Your task to perform on an android device: Is it going to rain tomorrow? Image 0: 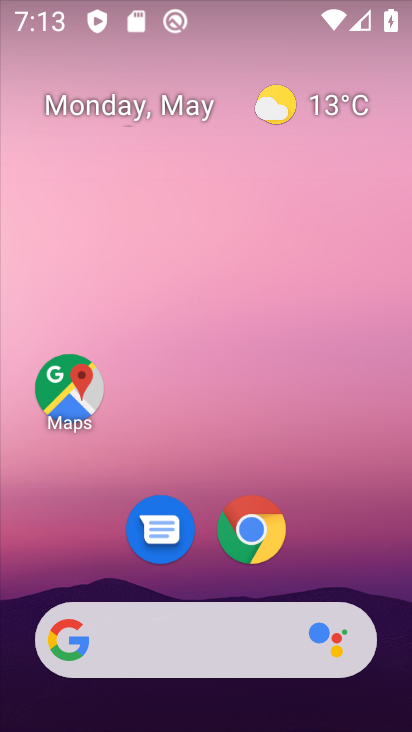
Step 0: drag from (265, 697) to (279, 208)
Your task to perform on an android device: Is it going to rain tomorrow? Image 1: 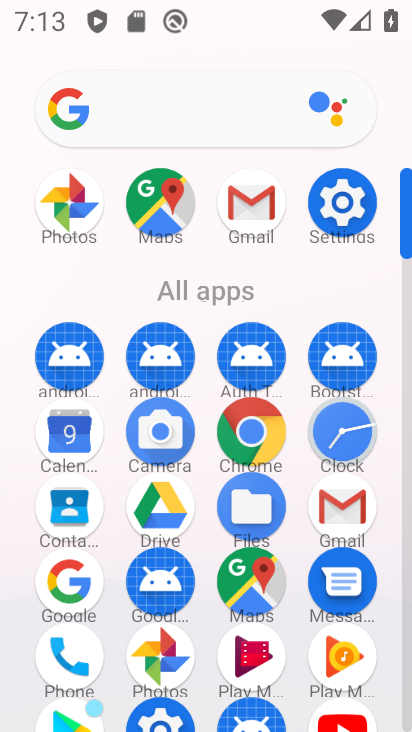
Step 1: click (125, 123)
Your task to perform on an android device: Is it going to rain tomorrow? Image 2: 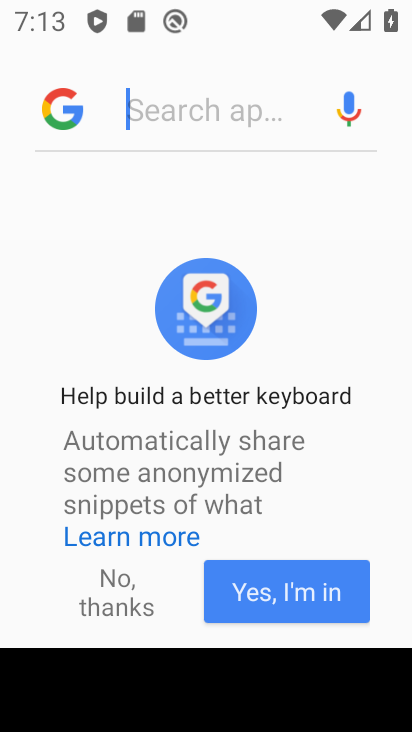
Step 2: click (111, 598)
Your task to perform on an android device: Is it going to rain tomorrow? Image 3: 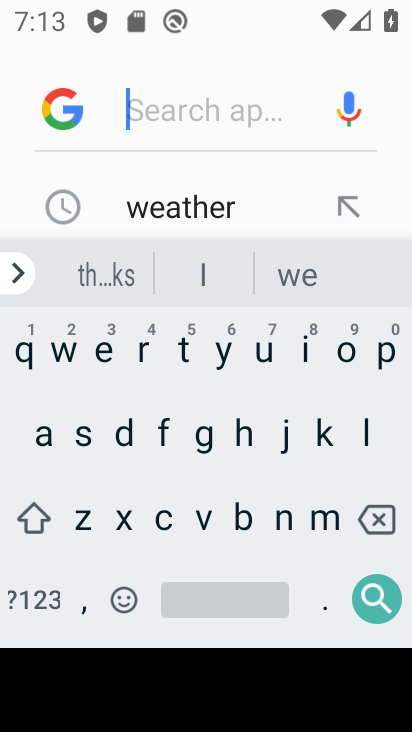
Step 3: click (218, 207)
Your task to perform on an android device: Is it going to rain tomorrow? Image 4: 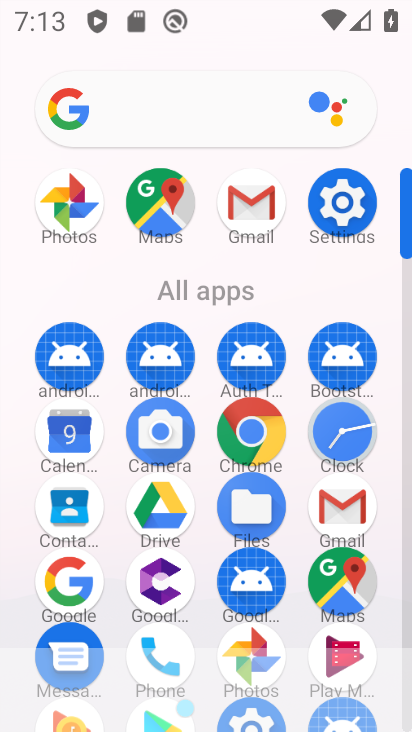
Step 4: click (146, 142)
Your task to perform on an android device: Is it going to rain tomorrow? Image 5: 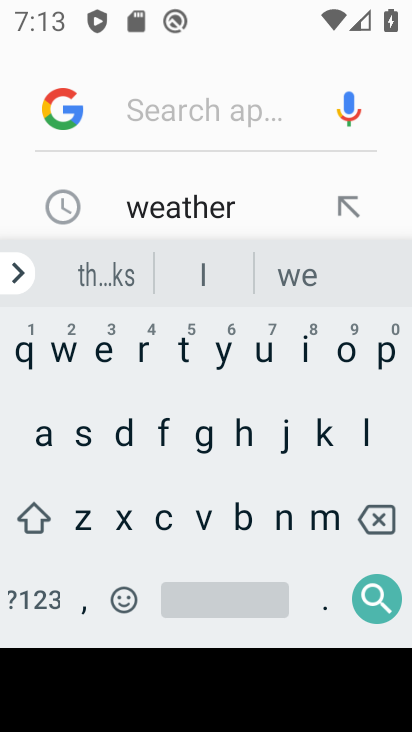
Step 5: click (173, 198)
Your task to perform on an android device: Is it going to rain tomorrow? Image 6: 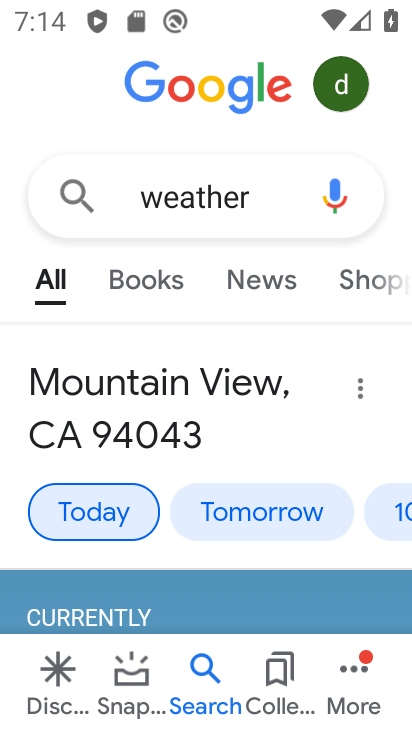
Step 6: drag from (257, 506) to (289, 329)
Your task to perform on an android device: Is it going to rain tomorrow? Image 7: 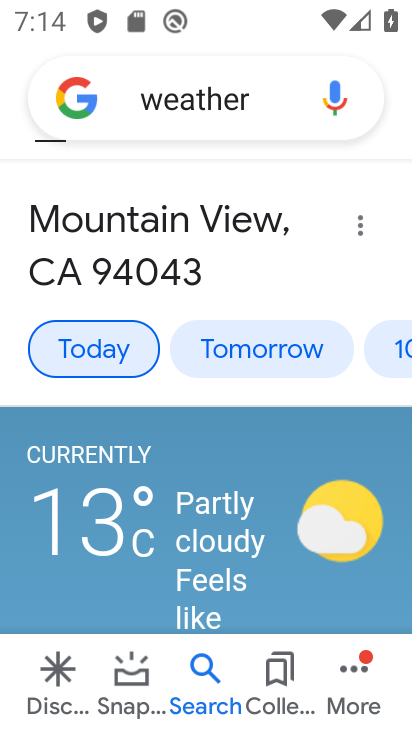
Step 7: click (251, 345)
Your task to perform on an android device: Is it going to rain tomorrow? Image 8: 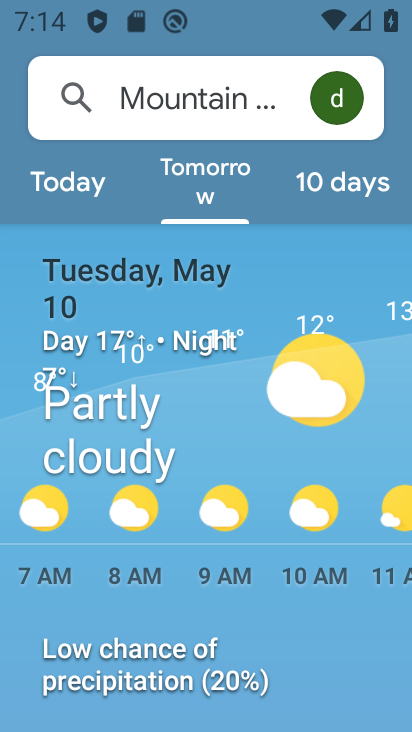
Step 8: task complete